Your task to perform on an android device: Search for pizza restaurants on Maps Image 0: 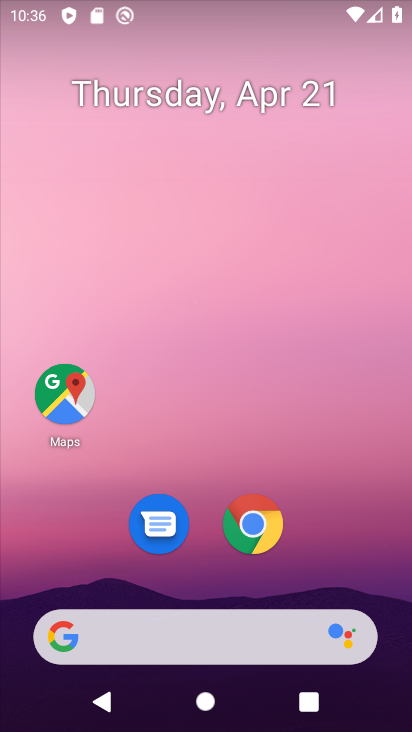
Step 0: click (68, 390)
Your task to perform on an android device: Search for pizza restaurants on Maps Image 1: 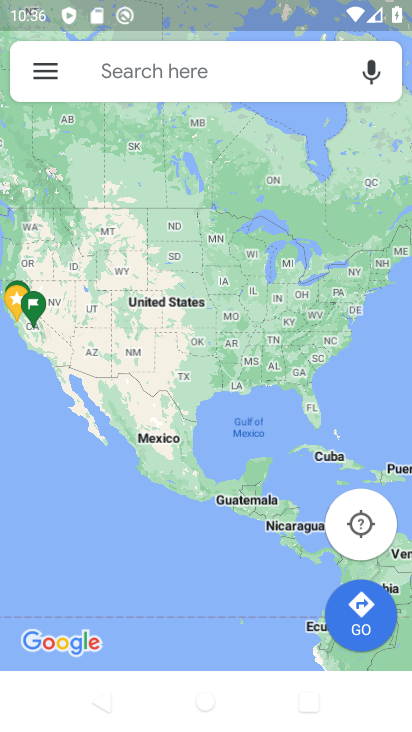
Step 1: click (225, 66)
Your task to perform on an android device: Search for pizza restaurants on Maps Image 2: 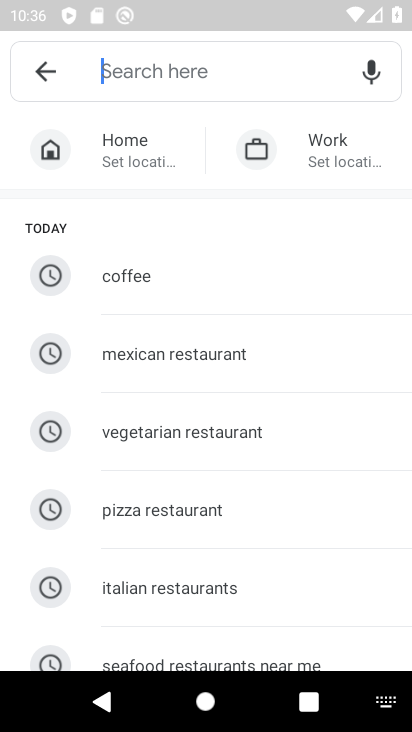
Step 2: click (164, 507)
Your task to perform on an android device: Search for pizza restaurants on Maps Image 3: 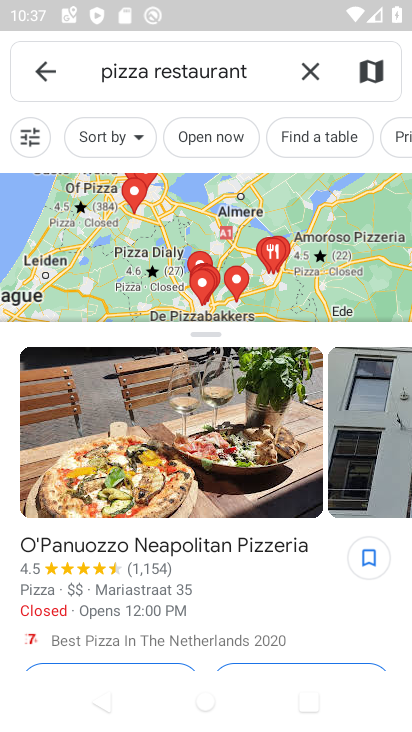
Step 3: task complete